Your task to perform on an android device: turn pop-ups on in chrome Image 0: 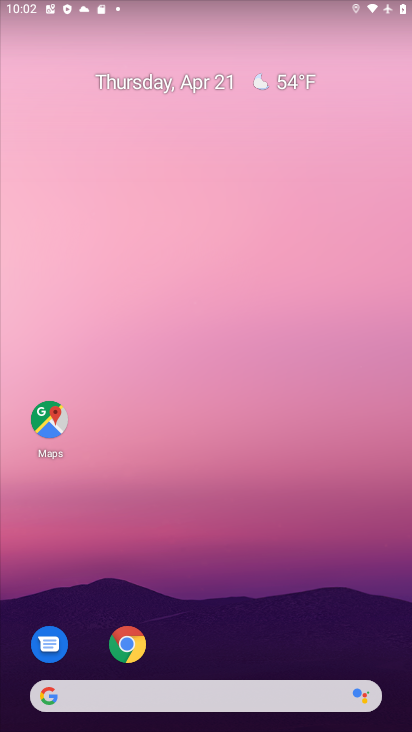
Step 0: click (151, 634)
Your task to perform on an android device: turn pop-ups on in chrome Image 1: 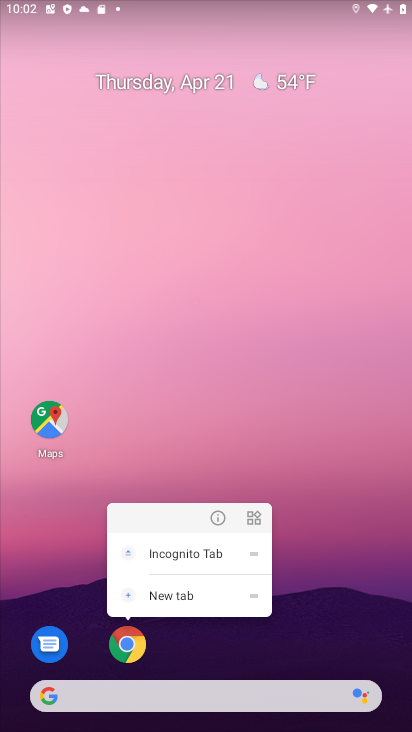
Step 1: click (129, 653)
Your task to perform on an android device: turn pop-ups on in chrome Image 2: 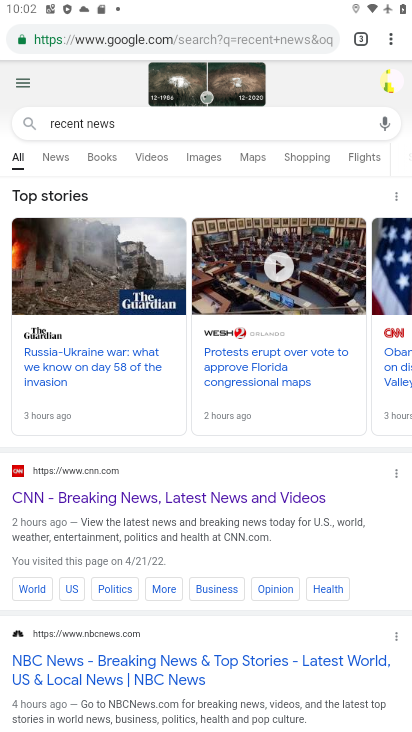
Step 2: drag from (389, 39) to (260, 465)
Your task to perform on an android device: turn pop-ups on in chrome Image 3: 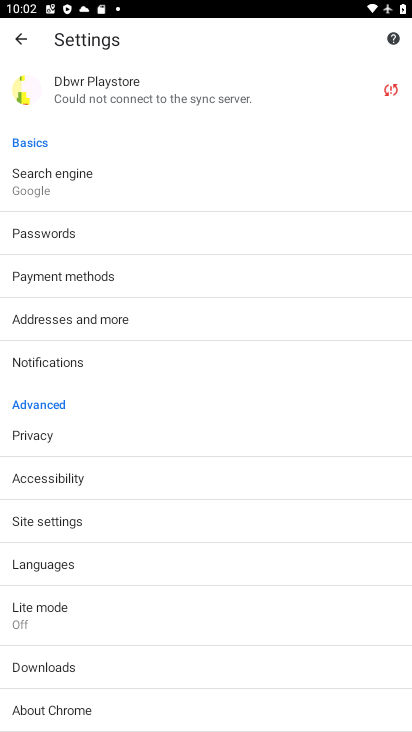
Step 3: click (23, 524)
Your task to perform on an android device: turn pop-ups on in chrome Image 4: 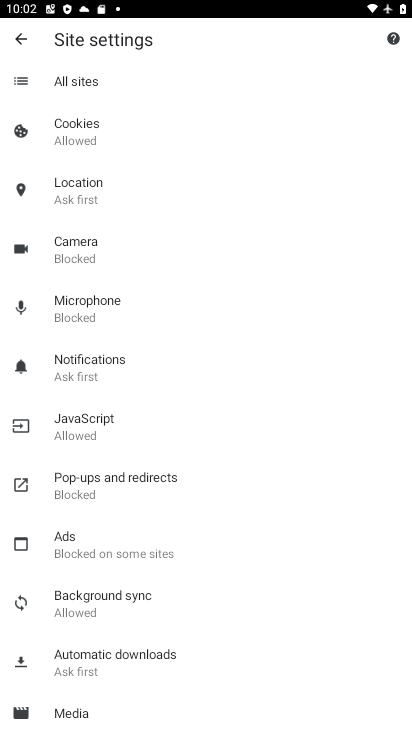
Step 4: click (75, 494)
Your task to perform on an android device: turn pop-ups on in chrome Image 5: 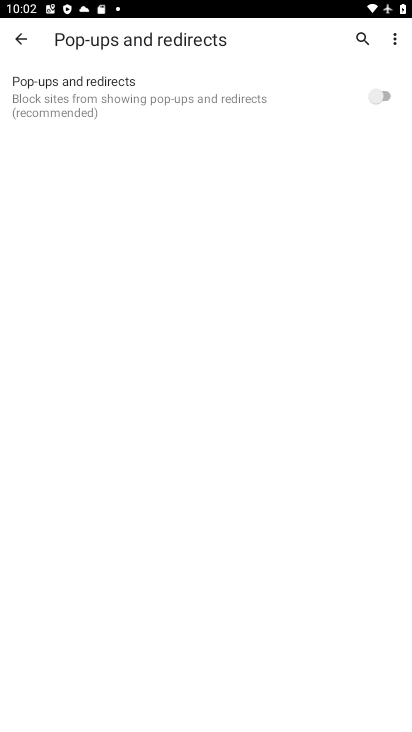
Step 5: click (377, 94)
Your task to perform on an android device: turn pop-ups on in chrome Image 6: 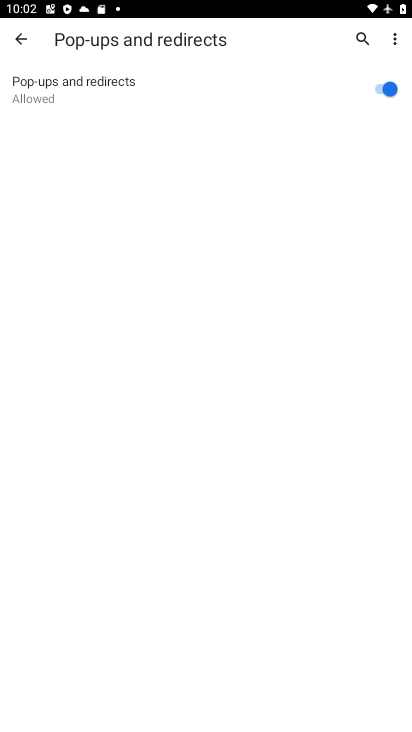
Step 6: task complete